Your task to perform on an android device: turn on translation in the chrome app Image 0: 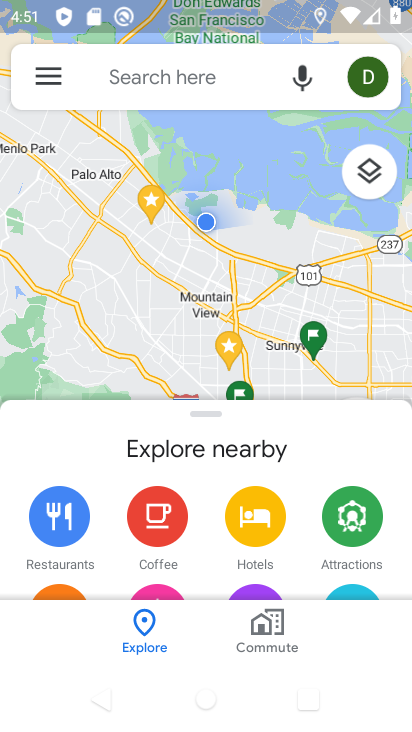
Step 0: press home button
Your task to perform on an android device: turn on translation in the chrome app Image 1: 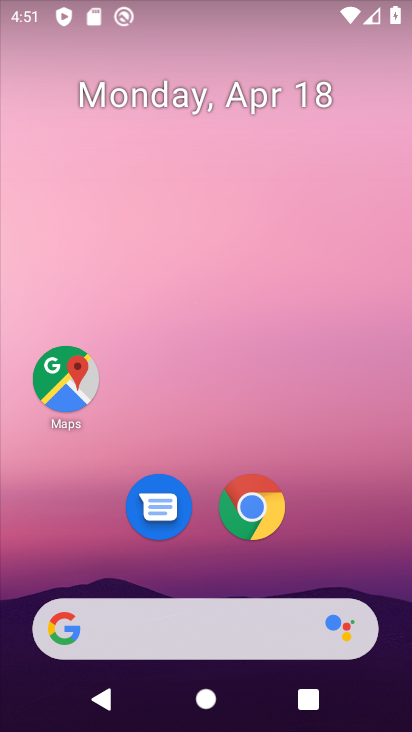
Step 1: click (250, 503)
Your task to perform on an android device: turn on translation in the chrome app Image 2: 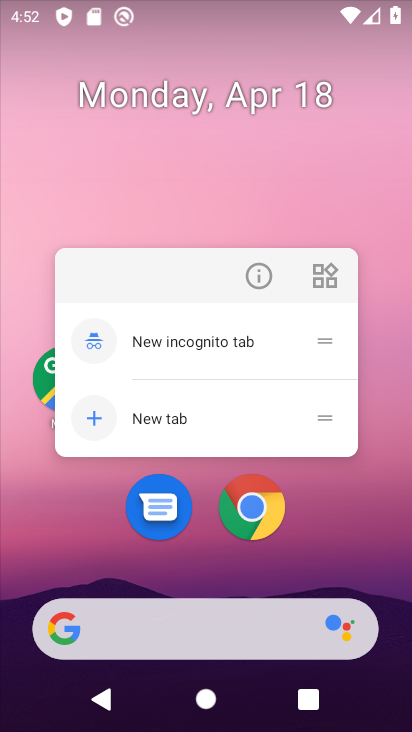
Step 2: drag from (311, 502) to (303, 59)
Your task to perform on an android device: turn on translation in the chrome app Image 3: 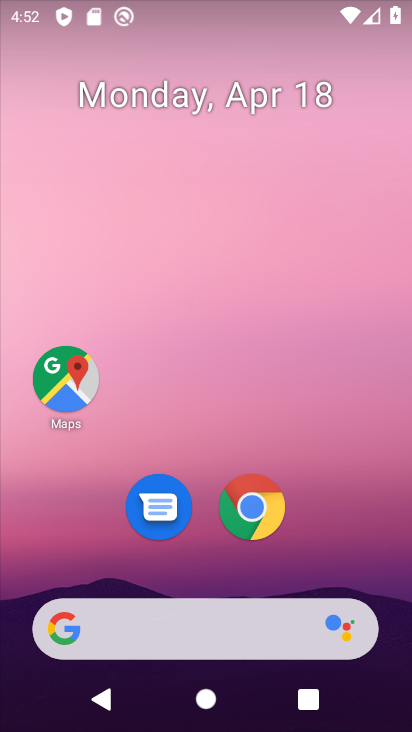
Step 3: drag from (351, 587) to (391, 14)
Your task to perform on an android device: turn on translation in the chrome app Image 4: 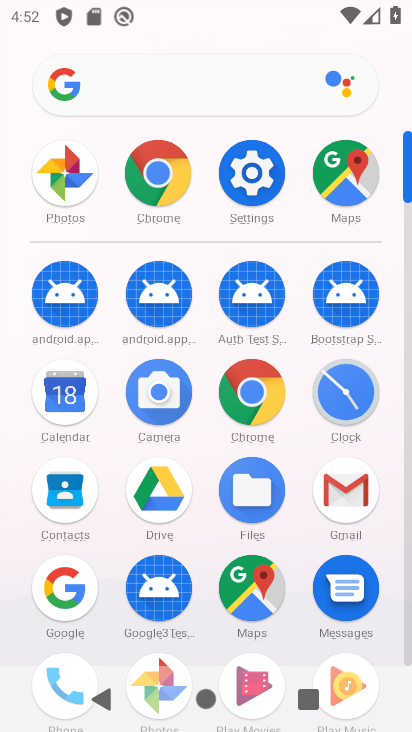
Step 4: click (249, 395)
Your task to perform on an android device: turn on translation in the chrome app Image 5: 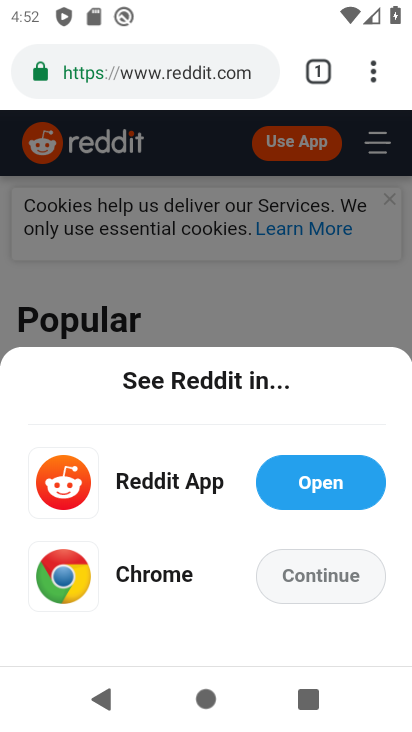
Step 5: click (357, 69)
Your task to perform on an android device: turn on translation in the chrome app Image 6: 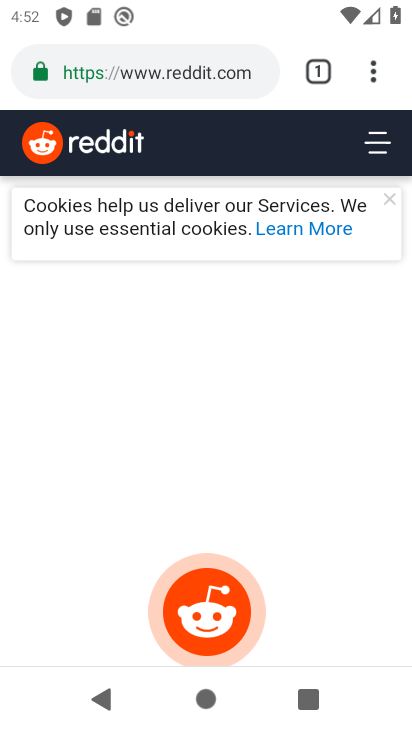
Step 6: click (359, 69)
Your task to perform on an android device: turn on translation in the chrome app Image 7: 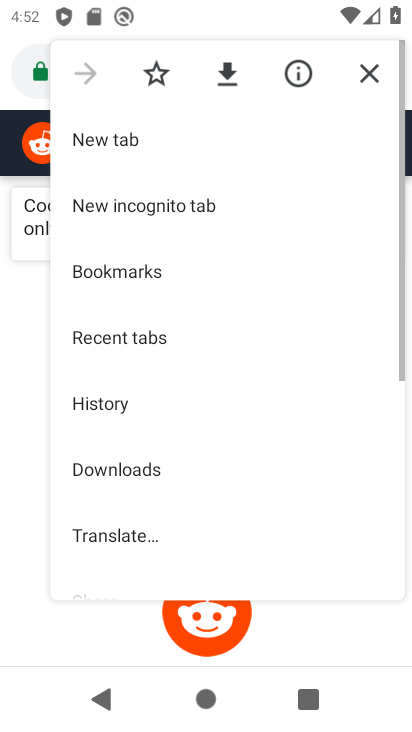
Step 7: drag from (309, 541) to (333, 123)
Your task to perform on an android device: turn on translation in the chrome app Image 8: 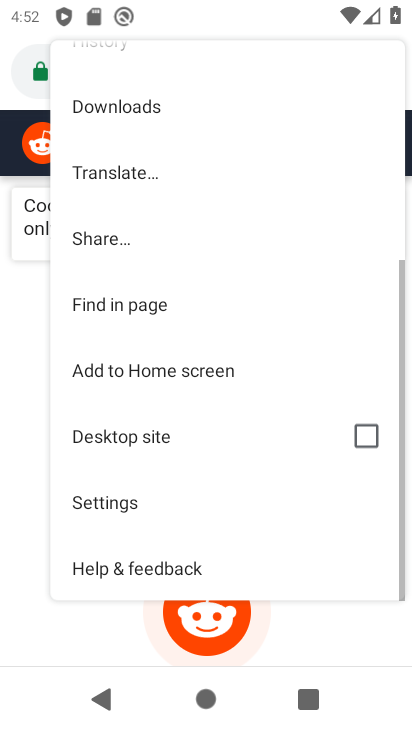
Step 8: click (153, 511)
Your task to perform on an android device: turn on translation in the chrome app Image 9: 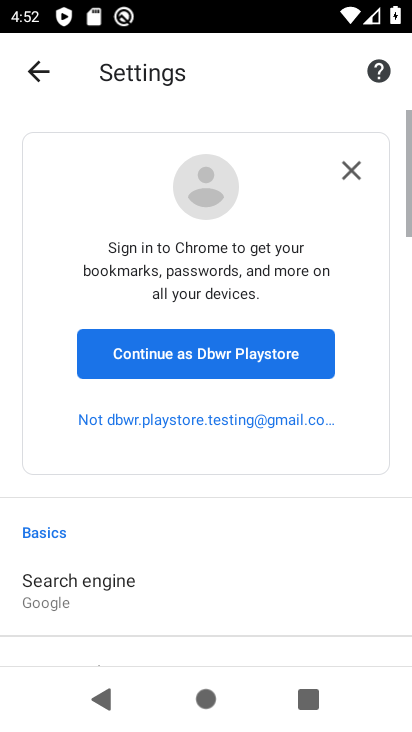
Step 9: drag from (200, 646) to (189, 144)
Your task to perform on an android device: turn on translation in the chrome app Image 10: 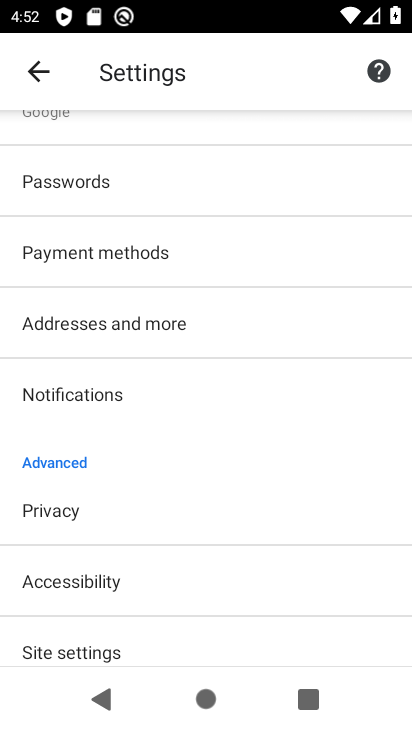
Step 10: drag from (196, 586) to (225, 232)
Your task to perform on an android device: turn on translation in the chrome app Image 11: 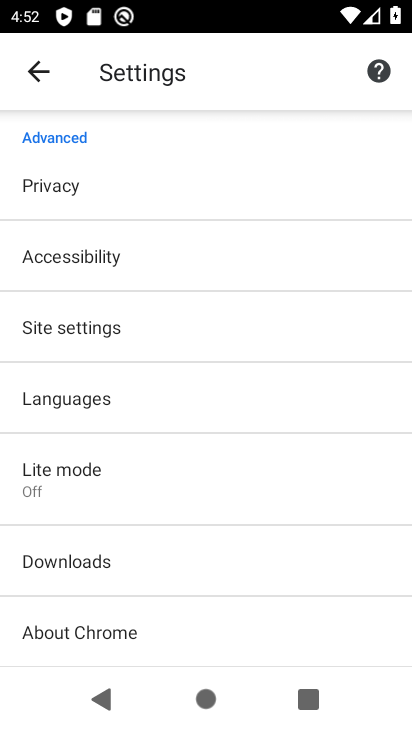
Step 11: click (124, 404)
Your task to perform on an android device: turn on translation in the chrome app Image 12: 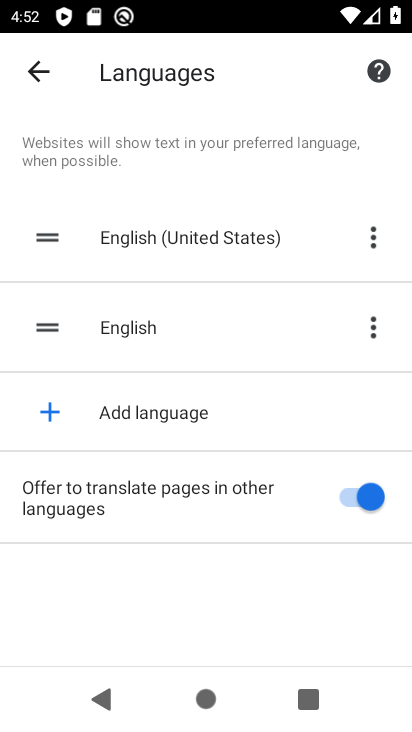
Step 12: task complete